Your task to perform on an android device: Open the web browser Image 0: 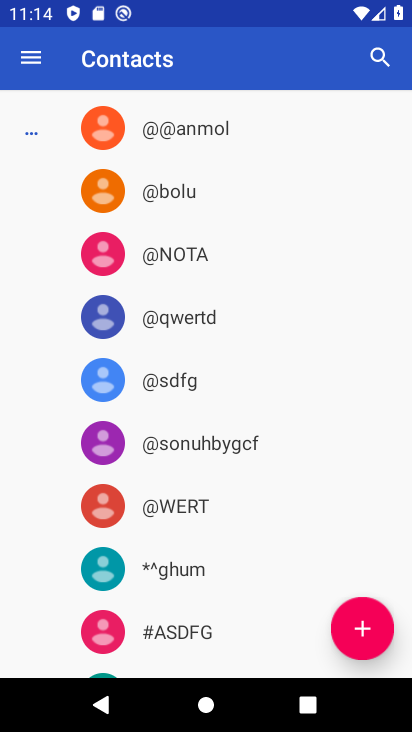
Step 0: press back button
Your task to perform on an android device: Open the web browser Image 1: 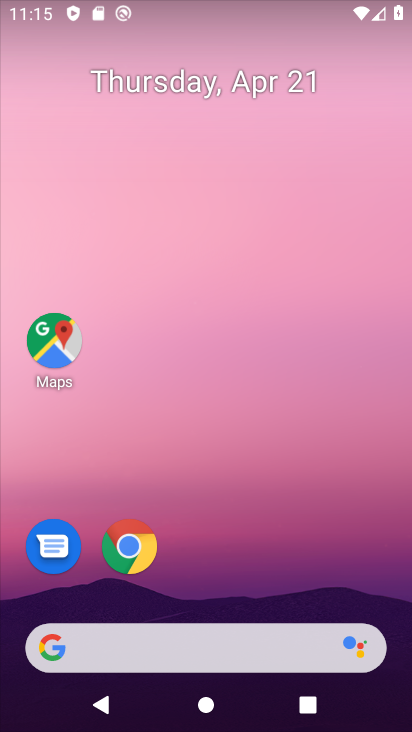
Step 1: click (143, 544)
Your task to perform on an android device: Open the web browser Image 2: 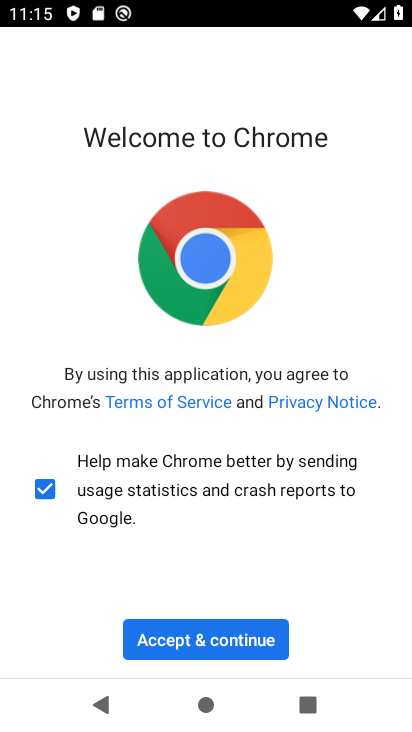
Step 2: click (198, 637)
Your task to perform on an android device: Open the web browser Image 3: 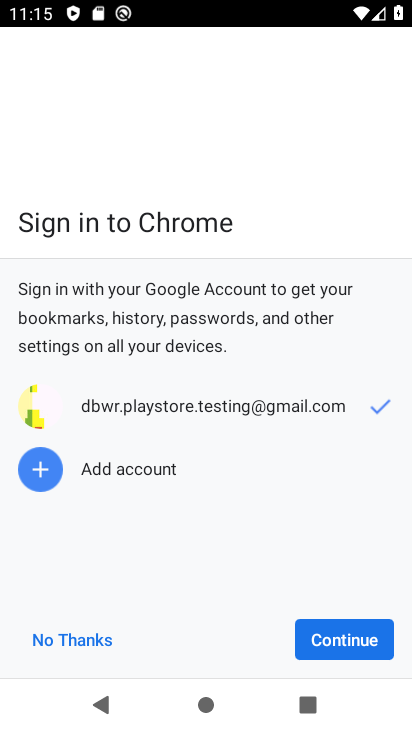
Step 3: click (377, 639)
Your task to perform on an android device: Open the web browser Image 4: 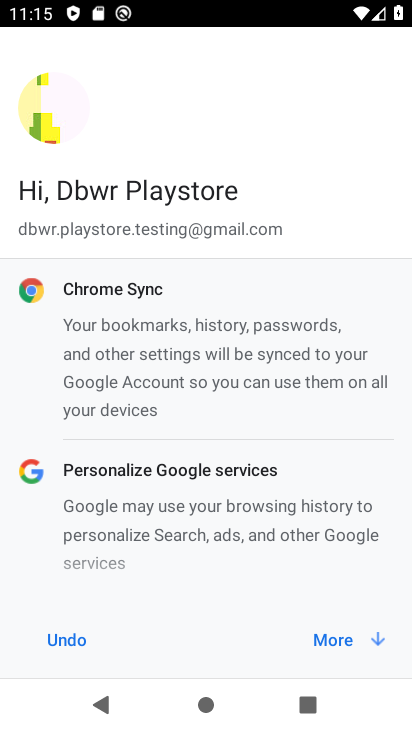
Step 4: click (340, 641)
Your task to perform on an android device: Open the web browser Image 5: 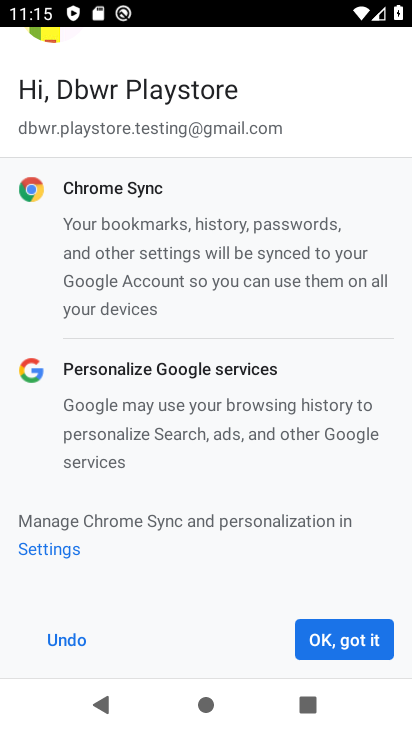
Step 5: click (340, 641)
Your task to perform on an android device: Open the web browser Image 6: 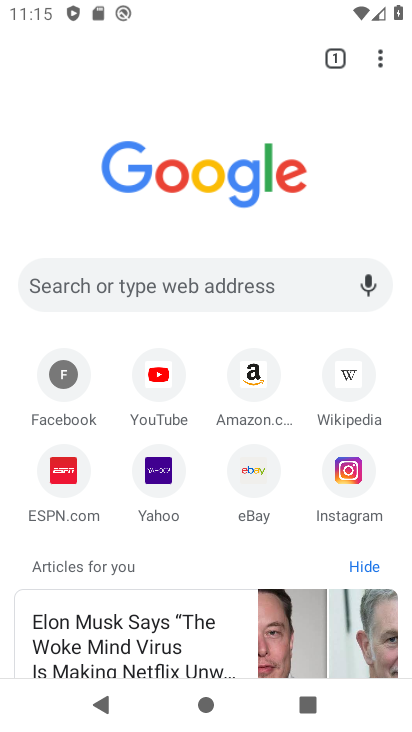
Step 6: task complete